Your task to perform on an android device: Open Google Image 0: 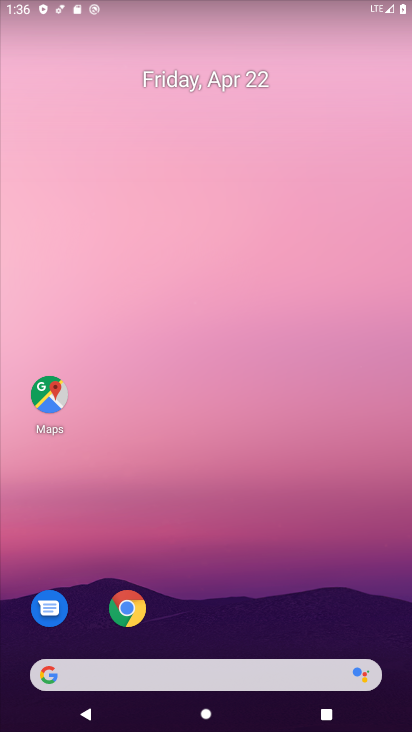
Step 0: drag from (318, 696) to (269, 177)
Your task to perform on an android device: Open Google Image 1: 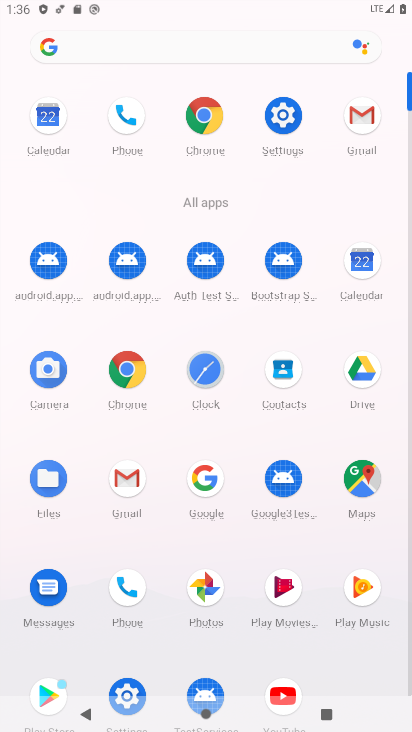
Step 1: click (194, 113)
Your task to perform on an android device: Open Google Image 2: 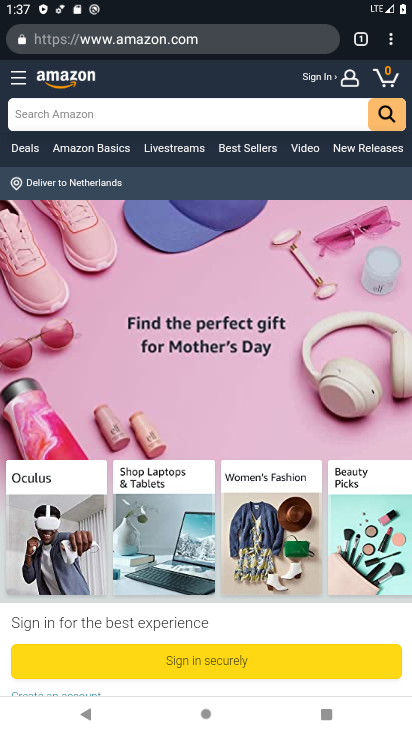
Step 2: click (177, 50)
Your task to perform on an android device: Open Google Image 3: 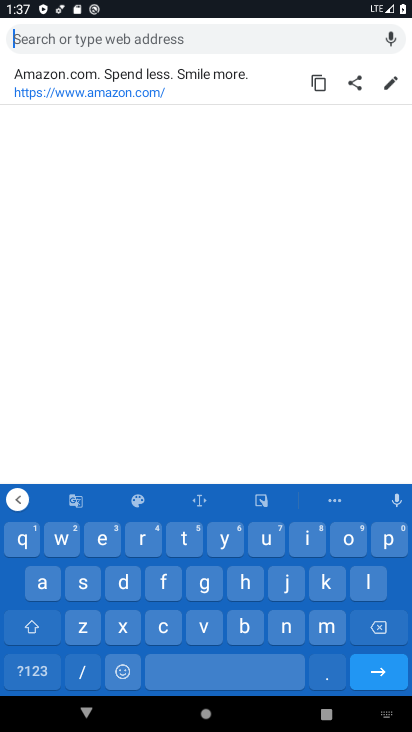
Step 3: click (202, 586)
Your task to perform on an android device: Open Google Image 4: 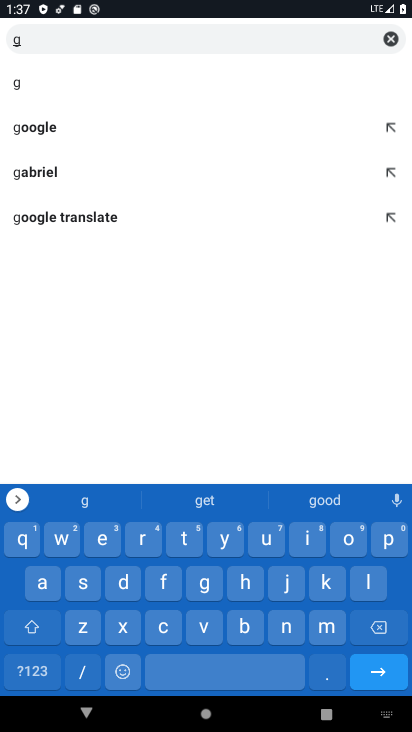
Step 4: click (82, 132)
Your task to perform on an android device: Open Google Image 5: 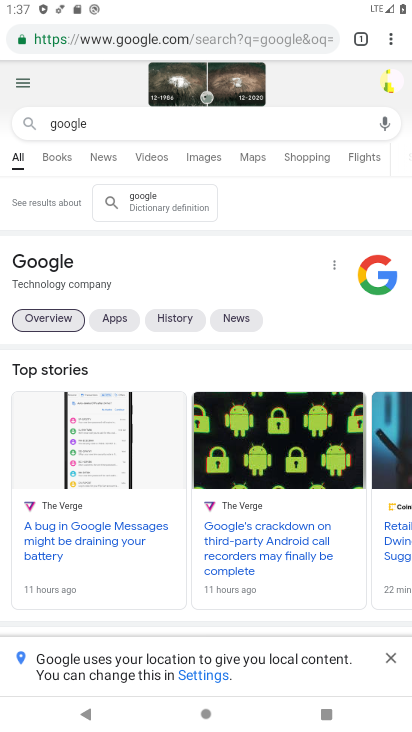
Step 5: drag from (123, 565) to (220, 339)
Your task to perform on an android device: Open Google Image 6: 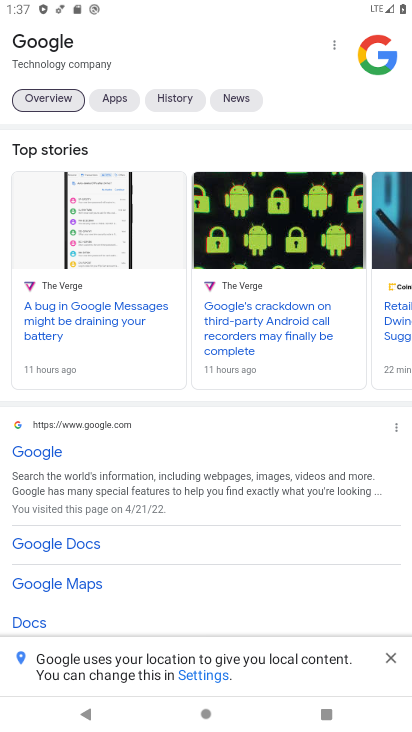
Step 6: click (26, 454)
Your task to perform on an android device: Open Google Image 7: 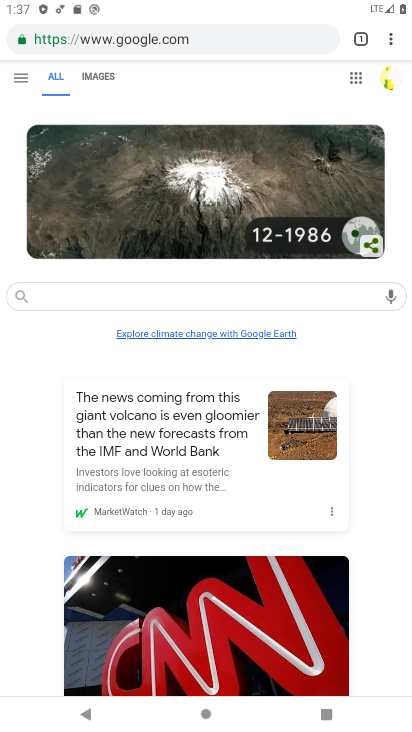
Step 7: task complete